Your task to perform on an android device: open app "VLC for Android" Image 0: 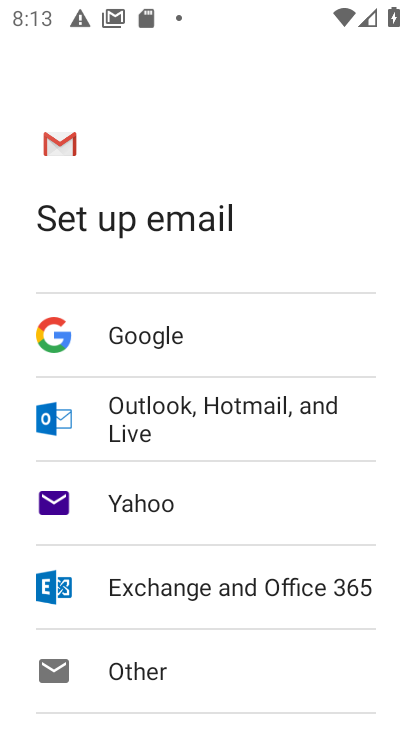
Step 0: press home button
Your task to perform on an android device: open app "VLC for Android" Image 1: 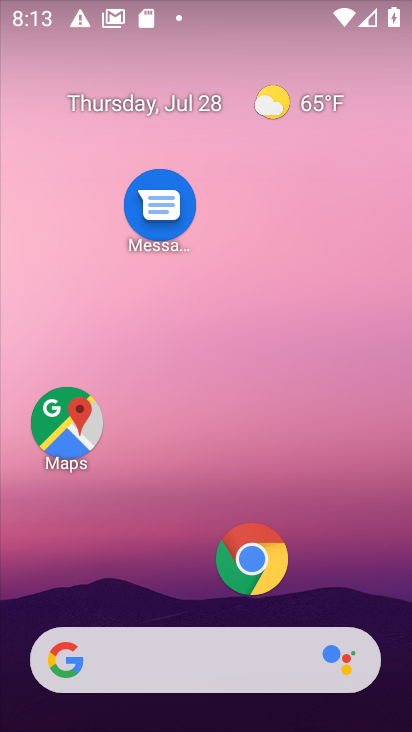
Step 1: drag from (164, 526) to (197, 198)
Your task to perform on an android device: open app "VLC for Android" Image 2: 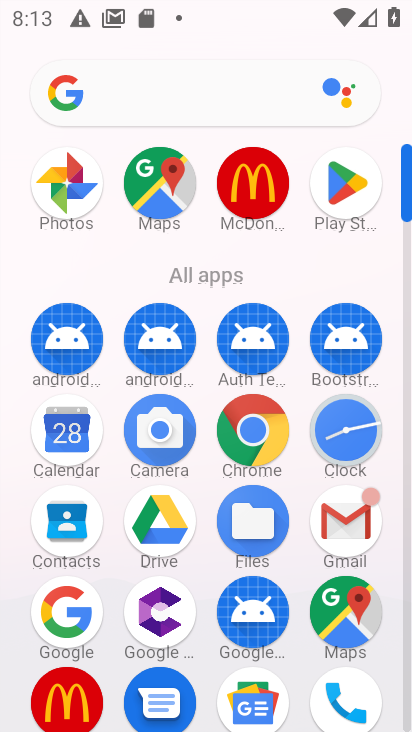
Step 2: click (357, 197)
Your task to perform on an android device: open app "VLC for Android" Image 3: 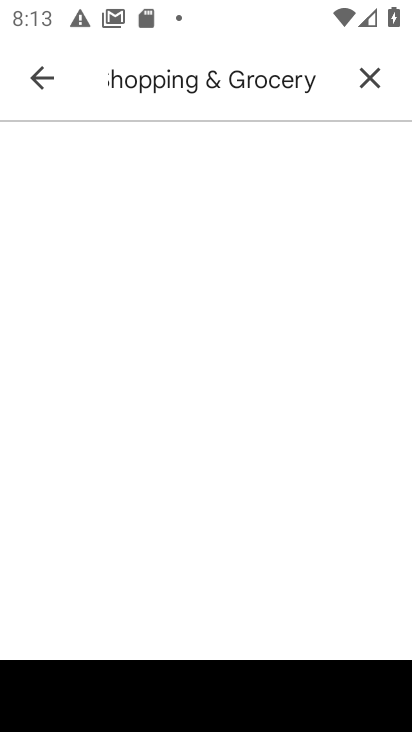
Step 3: drag from (194, 464) to (207, 179)
Your task to perform on an android device: open app "VLC for Android" Image 4: 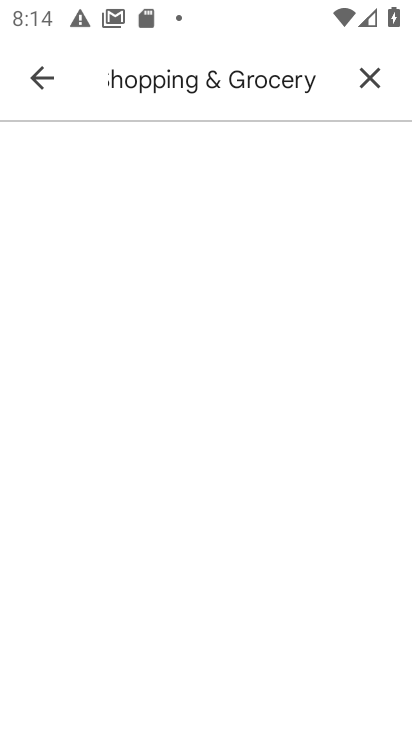
Step 4: drag from (230, 649) to (253, 309)
Your task to perform on an android device: open app "VLC for Android" Image 5: 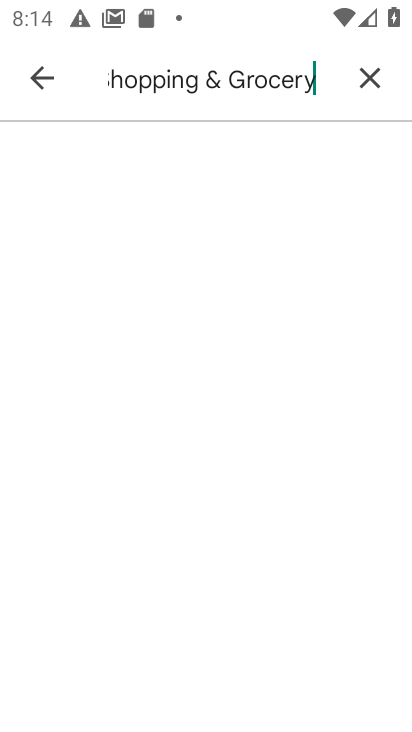
Step 5: click (368, 82)
Your task to perform on an android device: open app "VLC for Android" Image 6: 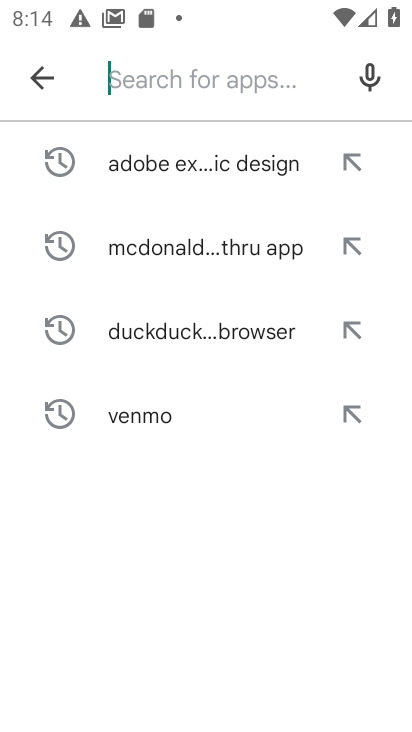
Step 6: click (49, 74)
Your task to perform on an android device: open app "VLC for Android" Image 7: 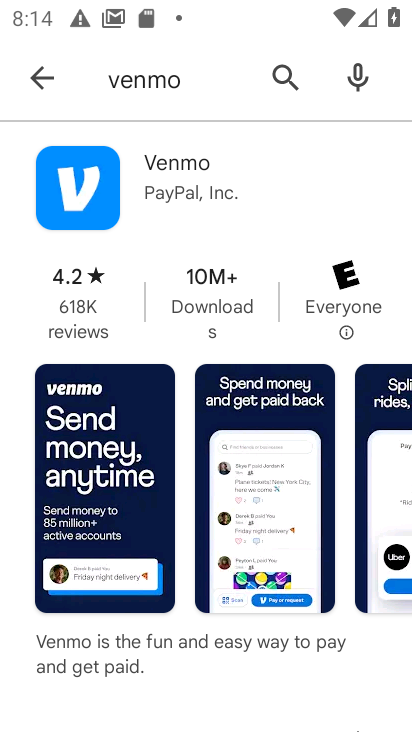
Step 7: click (46, 75)
Your task to perform on an android device: open app "VLC for Android" Image 8: 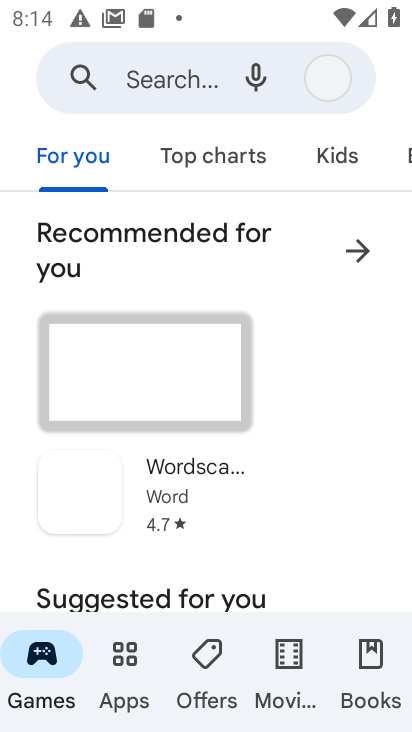
Step 8: click (147, 82)
Your task to perform on an android device: open app "VLC for Android" Image 9: 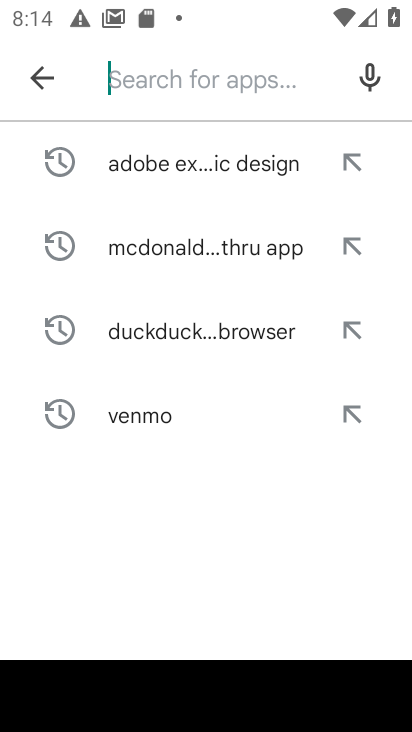
Step 9: type "VLC for Android"
Your task to perform on an android device: open app "VLC for Android" Image 10: 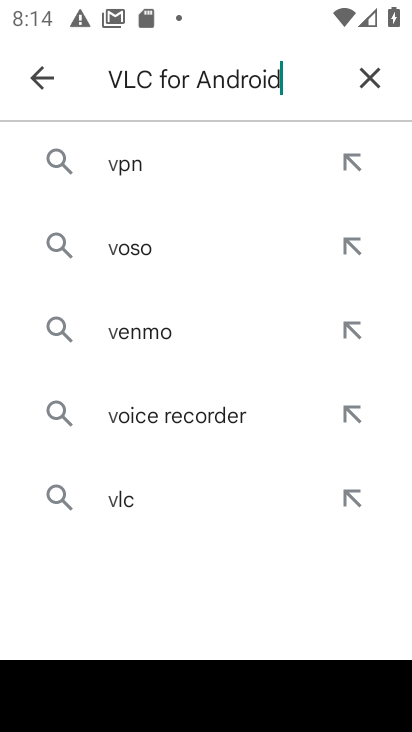
Step 10: type ""
Your task to perform on an android device: open app "VLC for Android" Image 11: 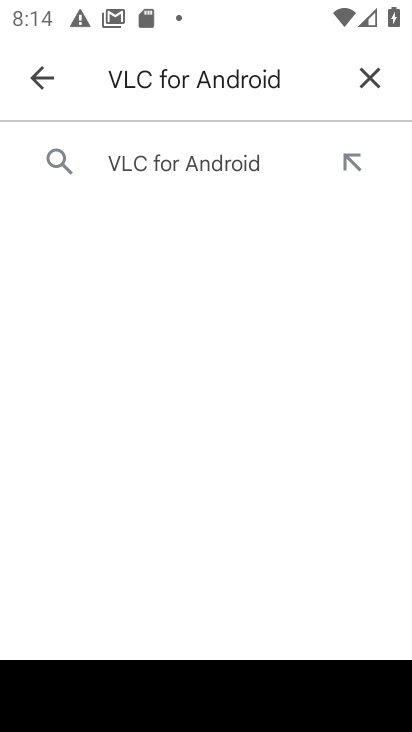
Step 11: click (160, 166)
Your task to perform on an android device: open app "VLC for Android" Image 12: 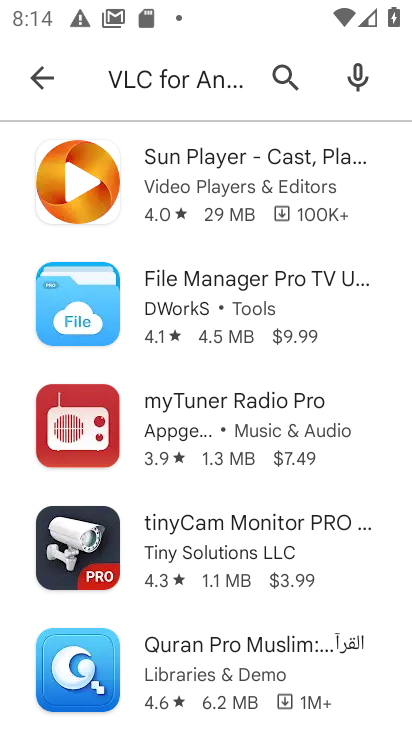
Step 12: task complete